Your task to perform on an android device: Search for razer blade on newegg, select the first entry, add it to the cart, then select checkout. Image 0: 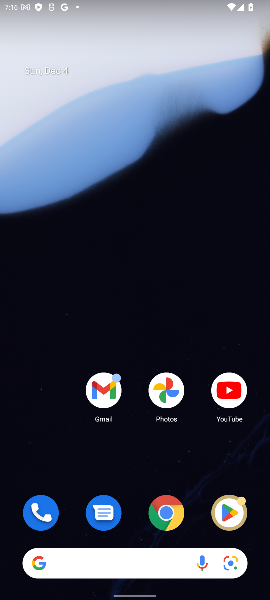
Step 0: click (165, 507)
Your task to perform on an android device: Search for razer blade on newegg, select the first entry, add it to the cart, then select checkout. Image 1: 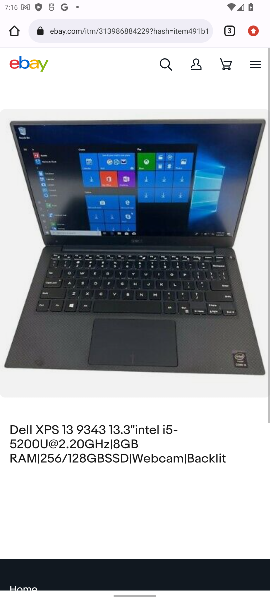
Step 1: click (227, 29)
Your task to perform on an android device: Search for razer blade on newegg, select the first entry, add it to the cart, then select checkout. Image 2: 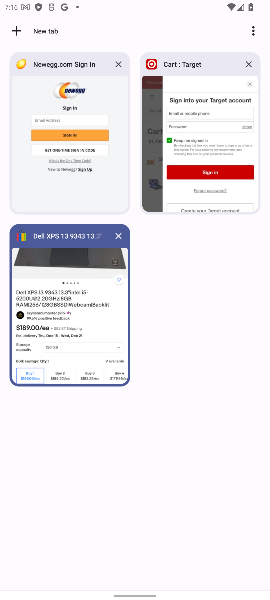
Step 2: click (88, 88)
Your task to perform on an android device: Search for razer blade on newegg, select the first entry, add it to the cart, then select checkout. Image 3: 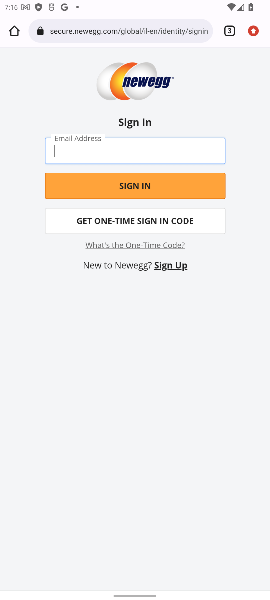
Step 3: press back button
Your task to perform on an android device: Search for razer blade on newegg, select the first entry, add it to the cart, then select checkout. Image 4: 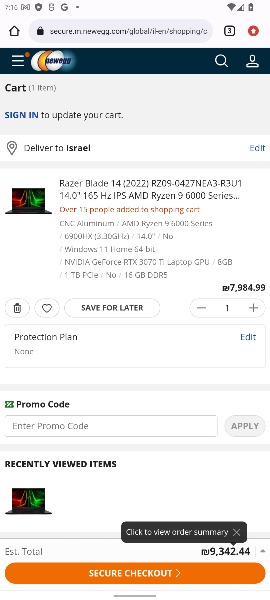
Step 4: click (127, 179)
Your task to perform on an android device: Search for razer blade on newegg, select the first entry, add it to the cart, then select checkout. Image 5: 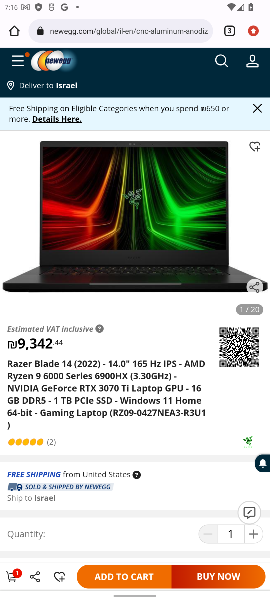
Step 5: click (140, 577)
Your task to perform on an android device: Search for razer blade on newegg, select the first entry, add it to the cart, then select checkout. Image 6: 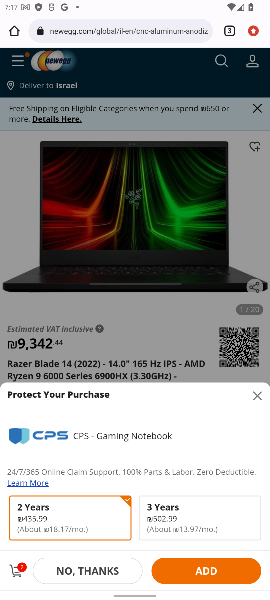
Step 6: click (93, 571)
Your task to perform on an android device: Search for razer blade on newegg, select the first entry, add it to the cart, then select checkout. Image 7: 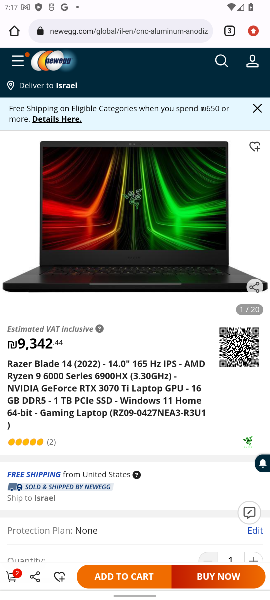
Step 7: click (13, 572)
Your task to perform on an android device: Search for razer blade on newegg, select the first entry, add it to the cart, then select checkout. Image 8: 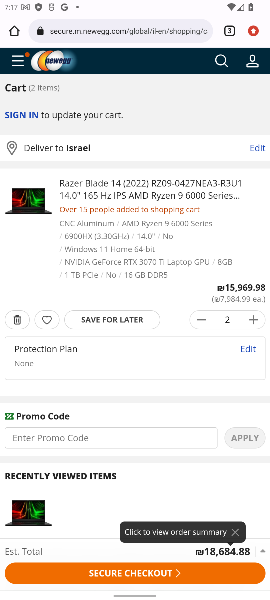
Step 8: click (128, 575)
Your task to perform on an android device: Search for razer blade on newegg, select the first entry, add it to the cart, then select checkout. Image 9: 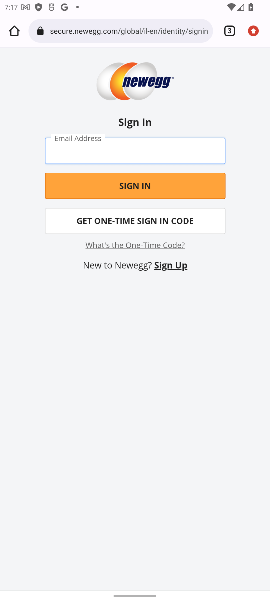
Step 9: task complete